Your task to perform on an android device: Open the phone app and click the voicemail tab. Image 0: 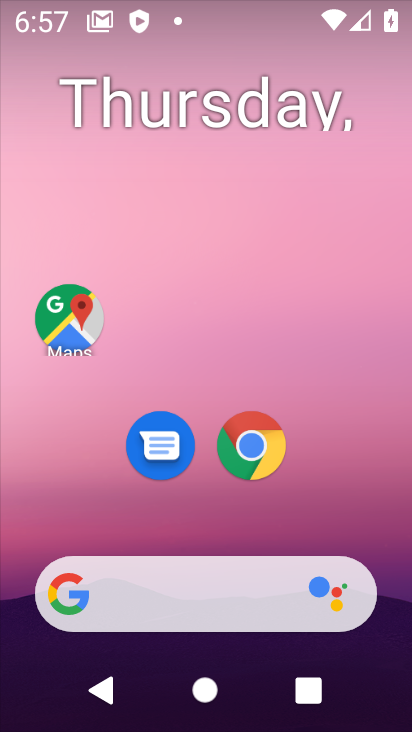
Step 0: drag from (387, 643) to (268, 51)
Your task to perform on an android device: Open the phone app and click the voicemail tab. Image 1: 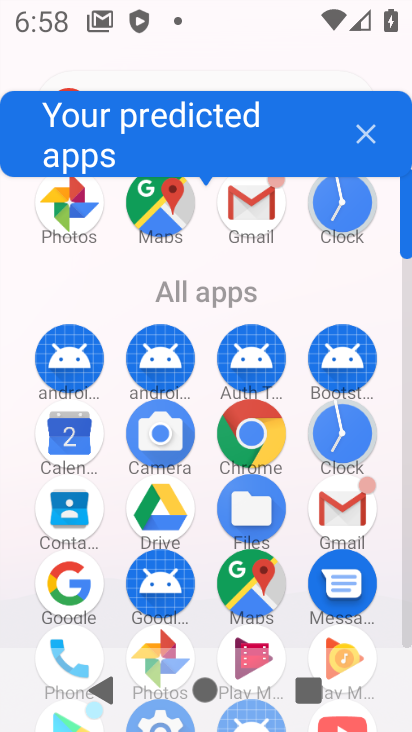
Step 1: drag from (115, 611) to (102, 259)
Your task to perform on an android device: Open the phone app and click the voicemail tab. Image 2: 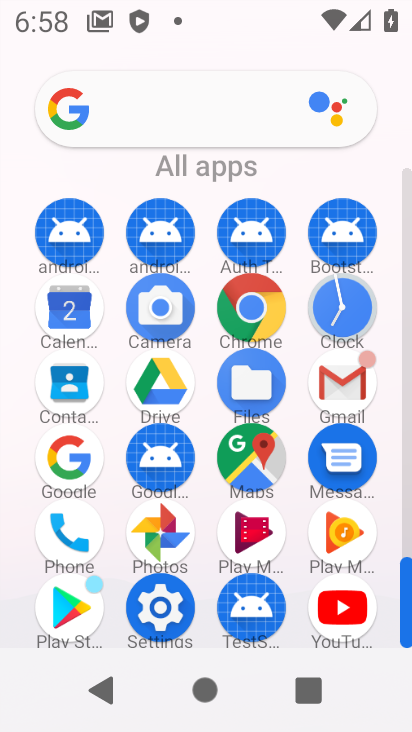
Step 2: click (51, 533)
Your task to perform on an android device: Open the phone app and click the voicemail tab. Image 3: 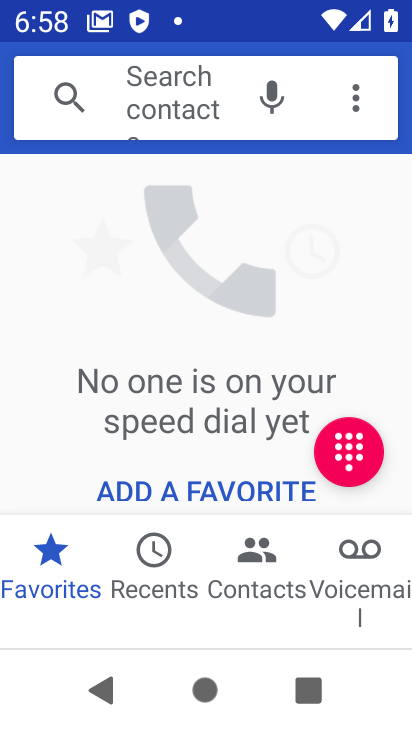
Step 3: click (372, 552)
Your task to perform on an android device: Open the phone app and click the voicemail tab. Image 4: 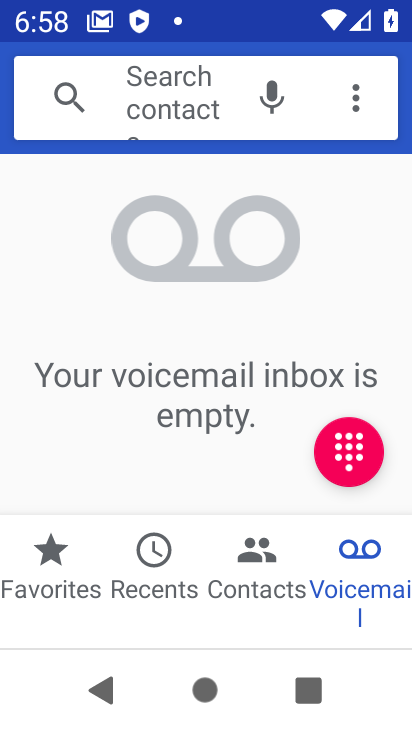
Step 4: task complete